Your task to perform on an android device: turn off airplane mode Image 0: 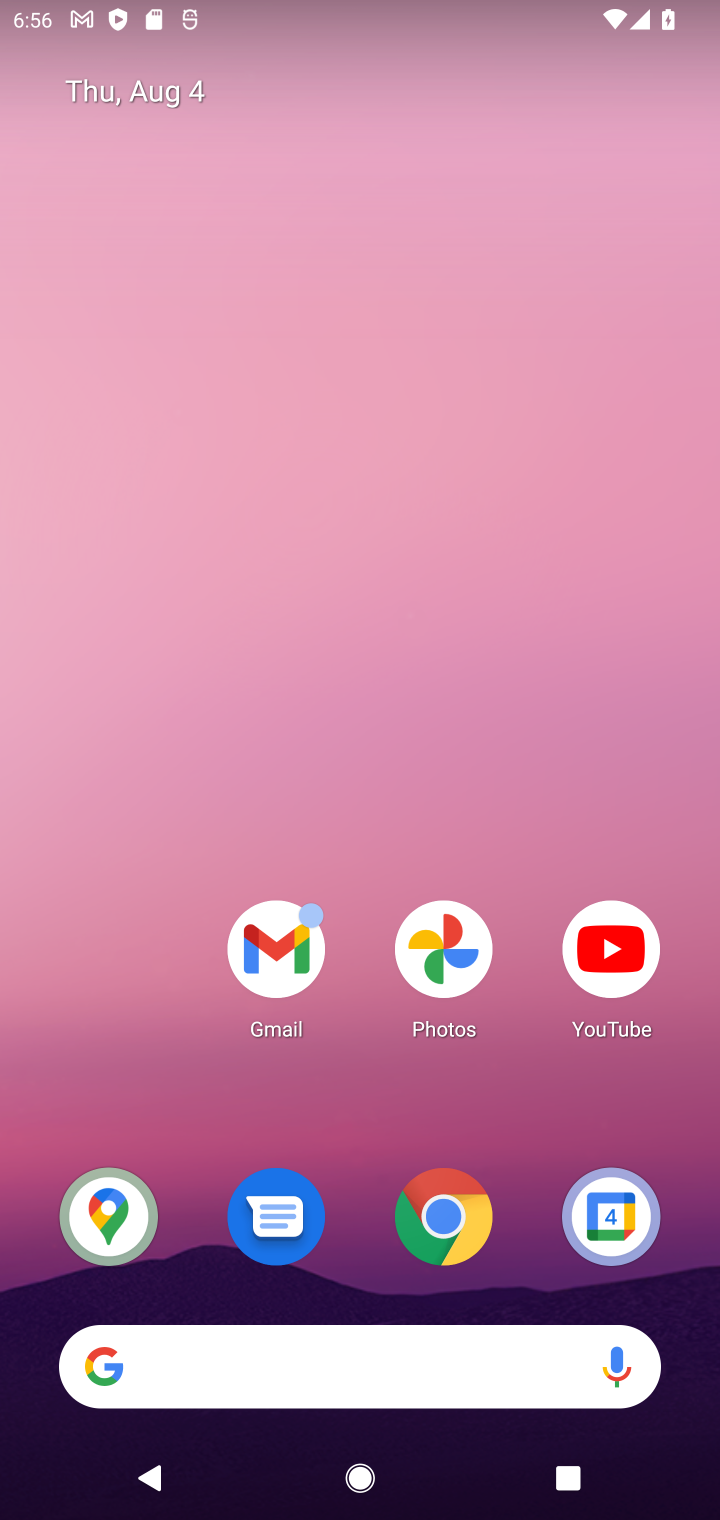
Step 0: drag from (329, 1162) to (206, 167)
Your task to perform on an android device: turn off airplane mode Image 1: 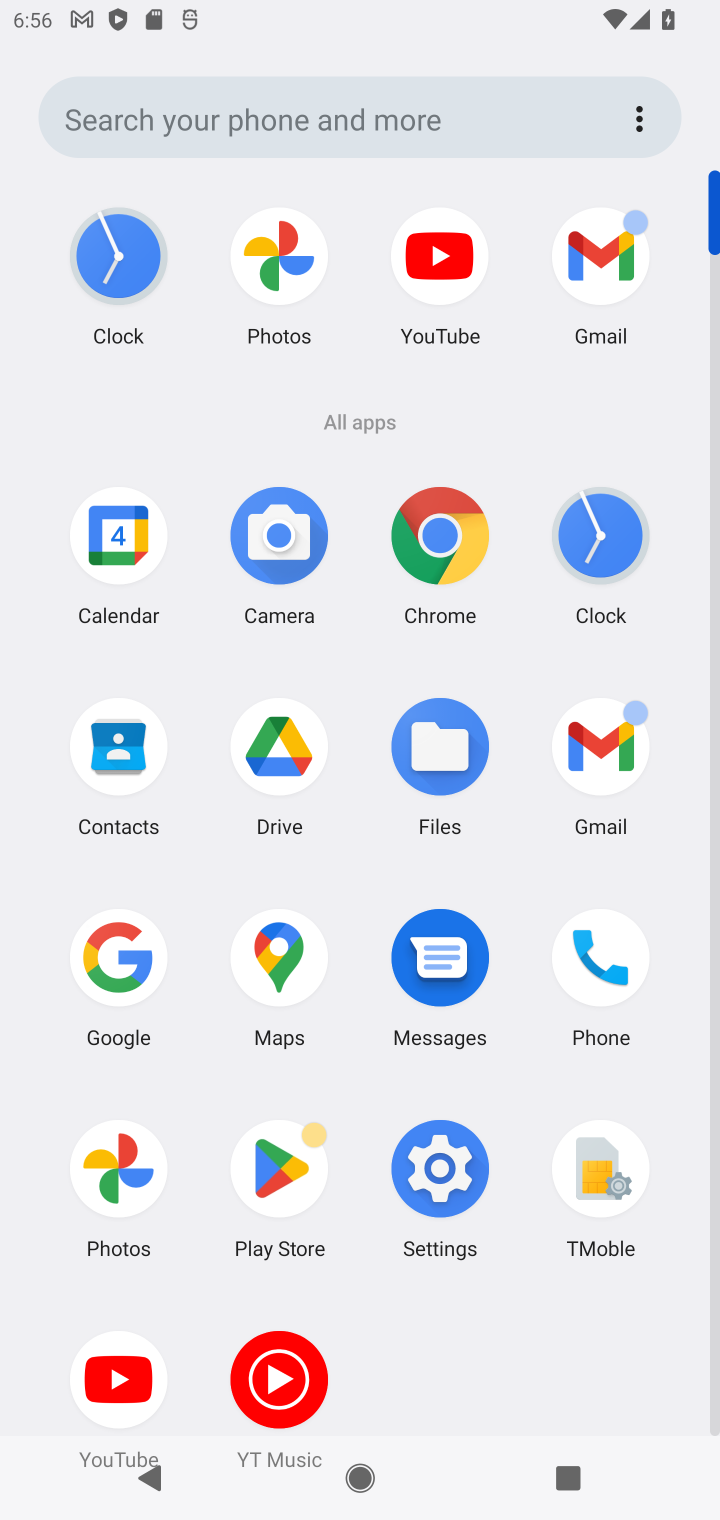
Step 1: click (449, 1165)
Your task to perform on an android device: turn off airplane mode Image 2: 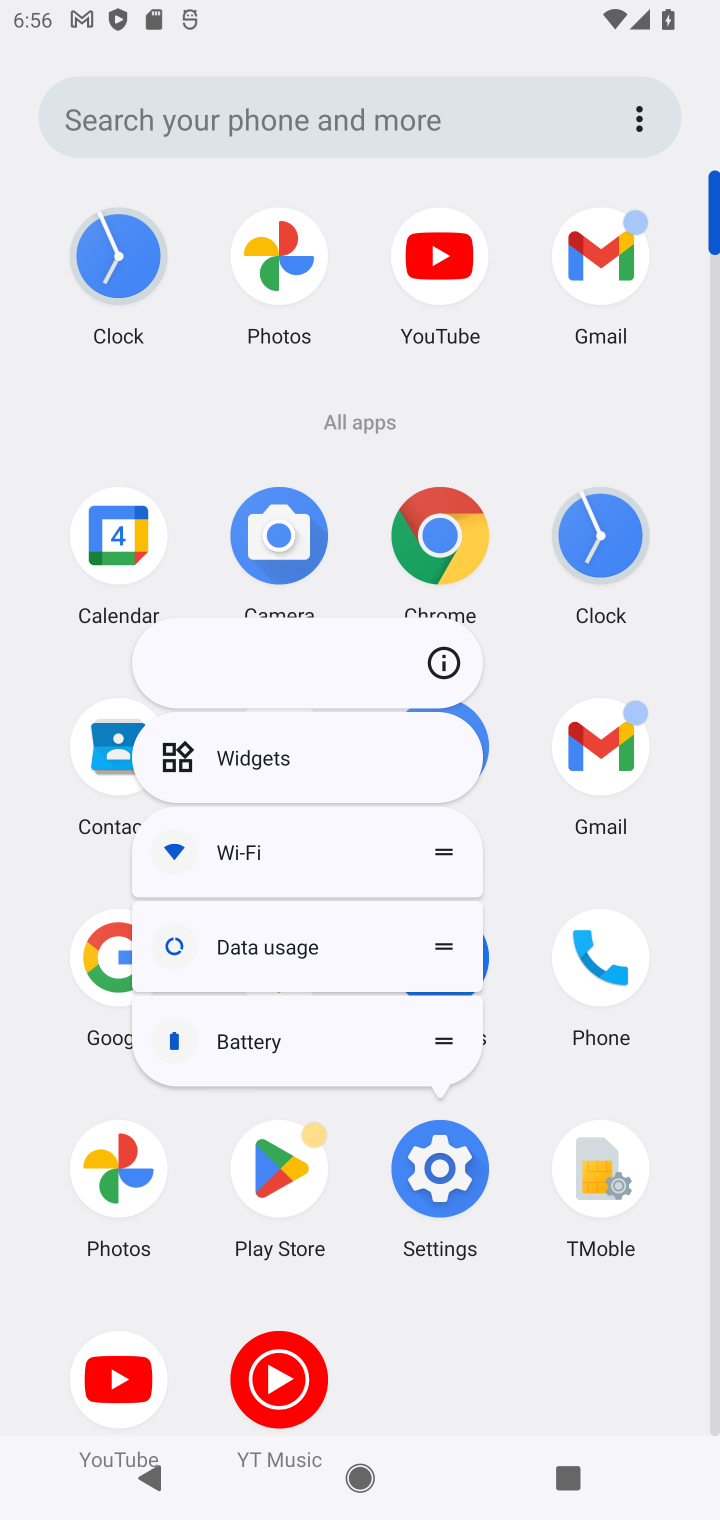
Step 2: click (447, 1165)
Your task to perform on an android device: turn off airplane mode Image 3: 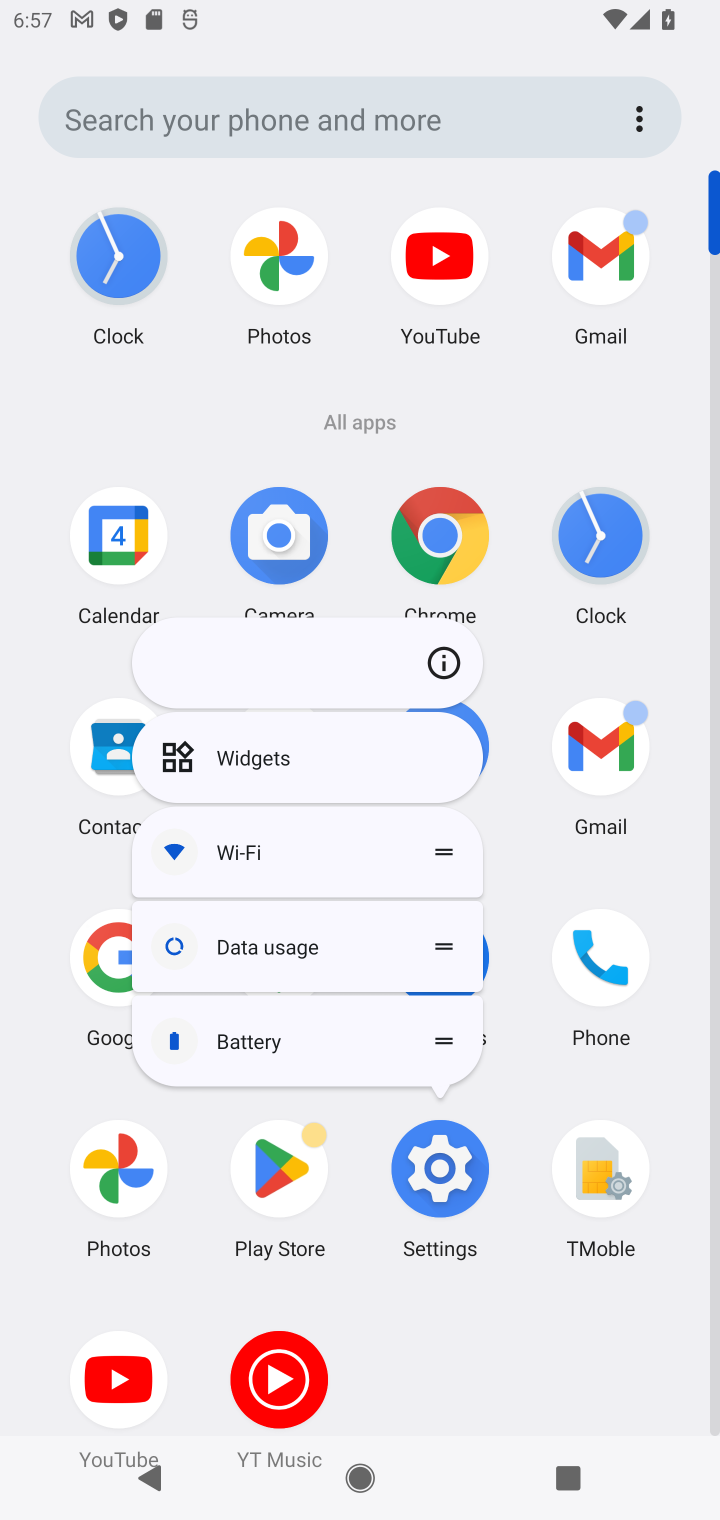
Step 3: click (448, 1176)
Your task to perform on an android device: turn off airplane mode Image 4: 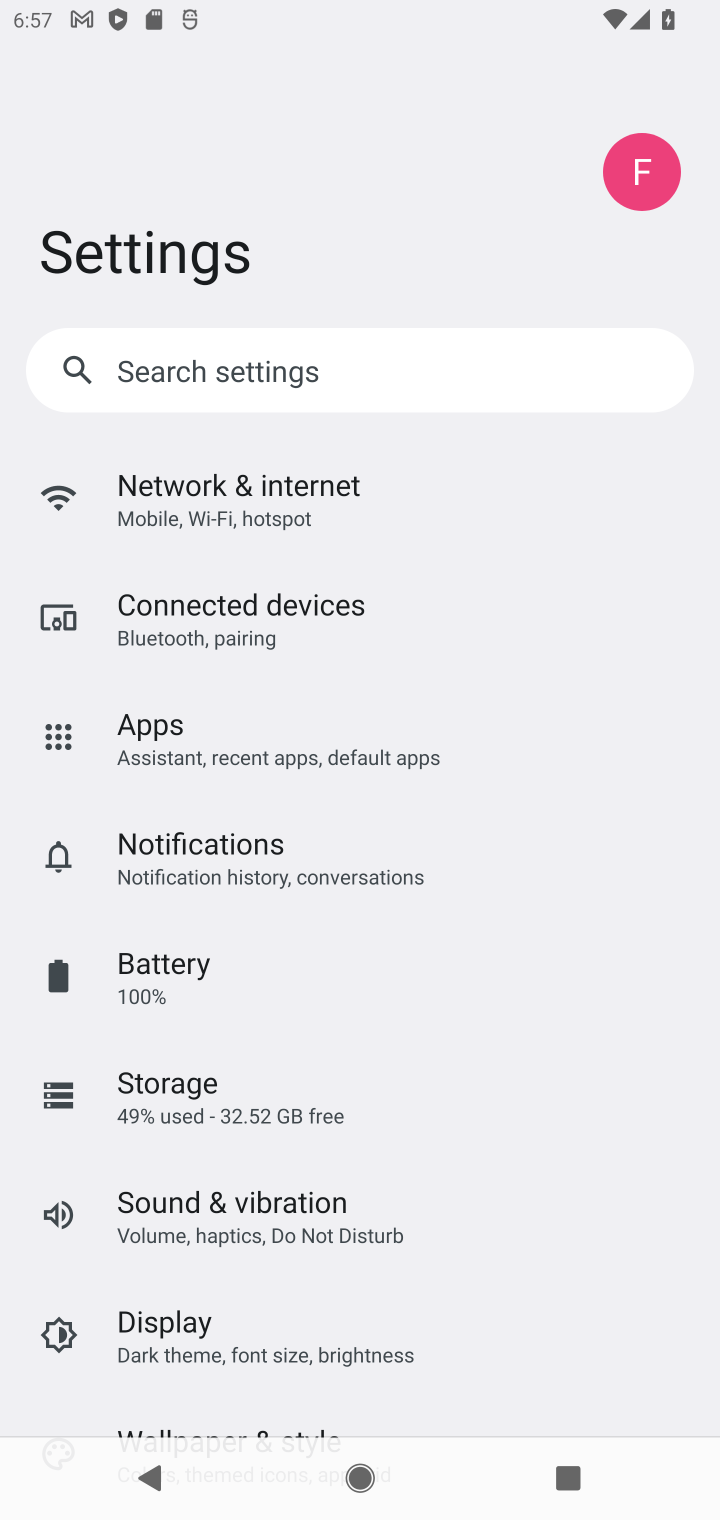
Step 4: click (215, 515)
Your task to perform on an android device: turn off airplane mode Image 5: 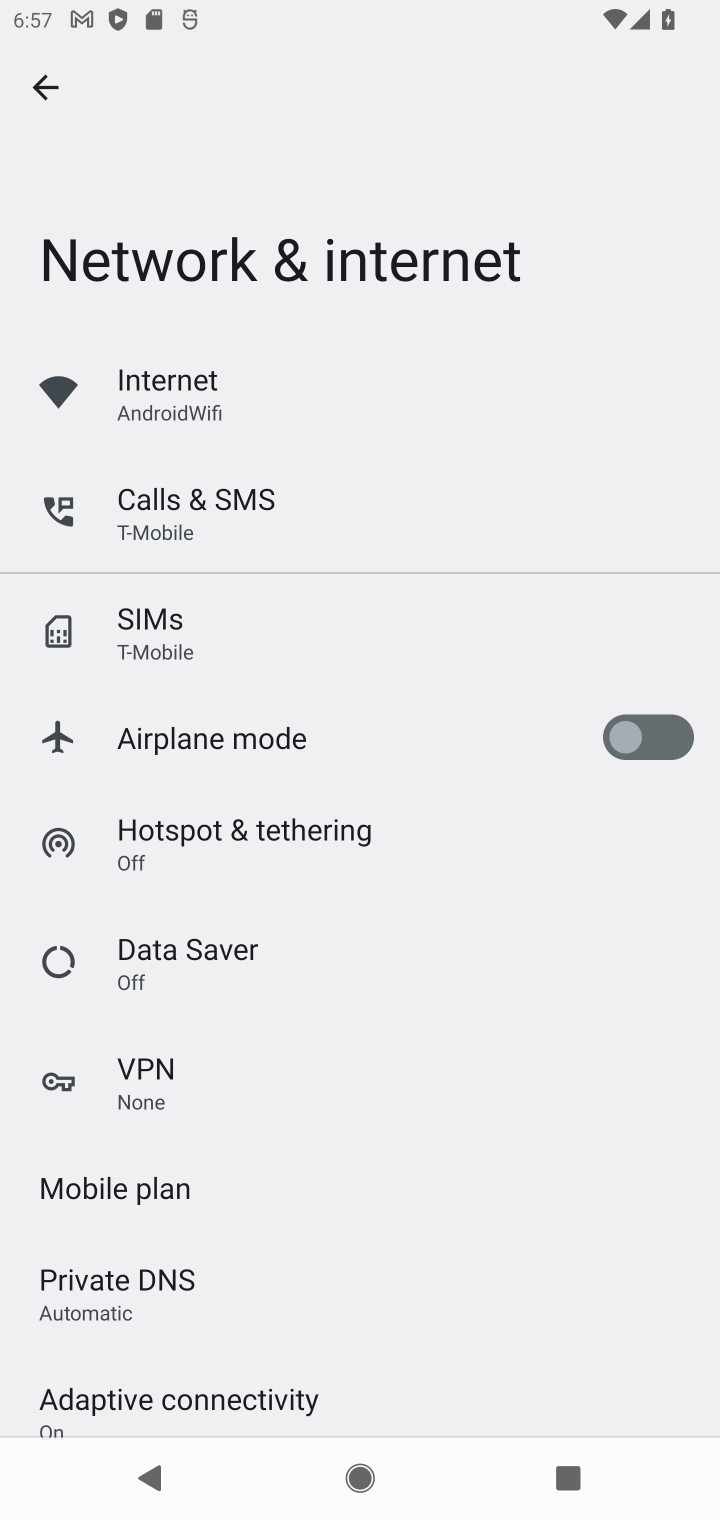
Step 5: task complete